Your task to perform on an android device: toggle javascript in the chrome app Image 0: 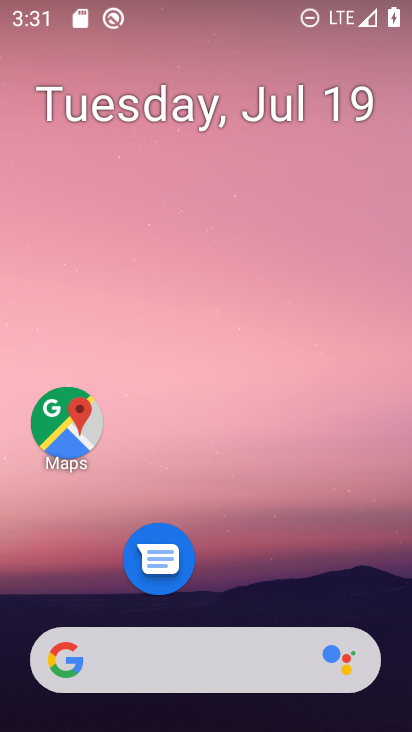
Step 0: drag from (193, 629) to (199, 142)
Your task to perform on an android device: toggle javascript in the chrome app Image 1: 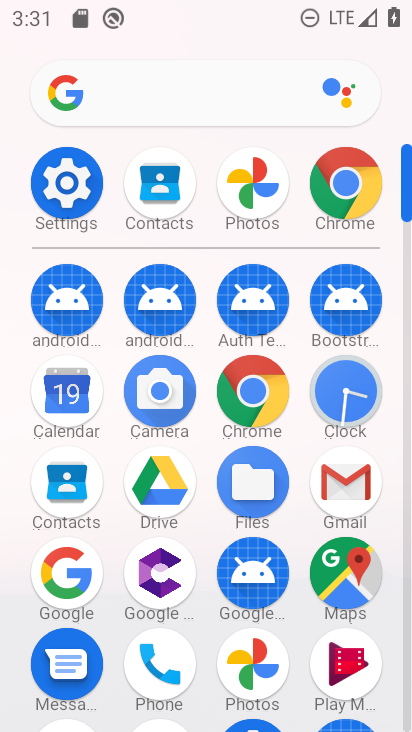
Step 1: click (355, 201)
Your task to perform on an android device: toggle javascript in the chrome app Image 2: 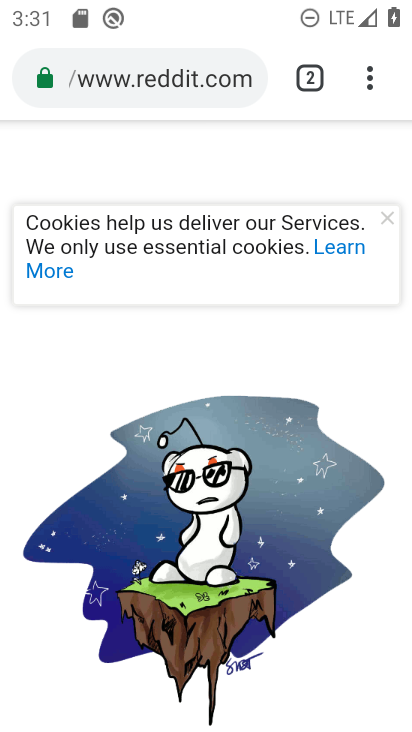
Step 2: click (368, 87)
Your task to perform on an android device: toggle javascript in the chrome app Image 3: 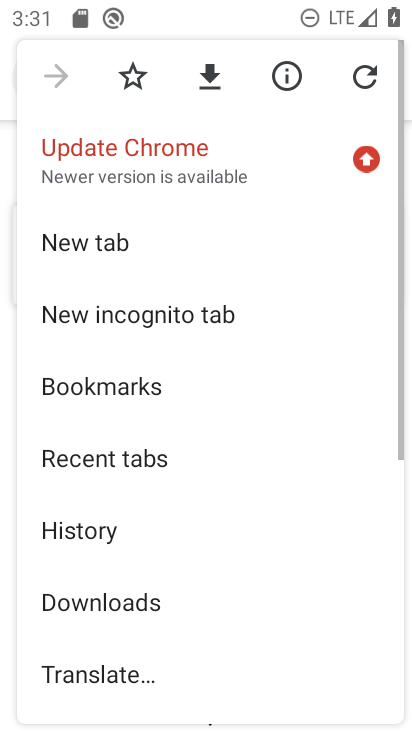
Step 3: drag from (194, 534) to (196, 250)
Your task to perform on an android device: toggle javascript in the chrome app Image 4: 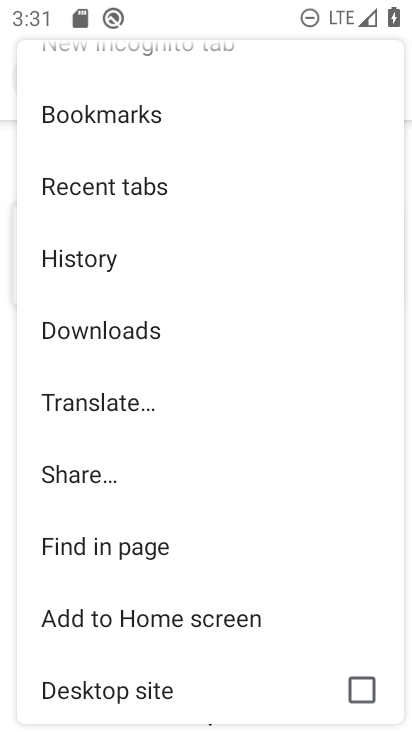
Step 4: drag from (144, 542) to (169, 195)
Your task to perform on an android device: toggle javascript in the chrome app Image 5: 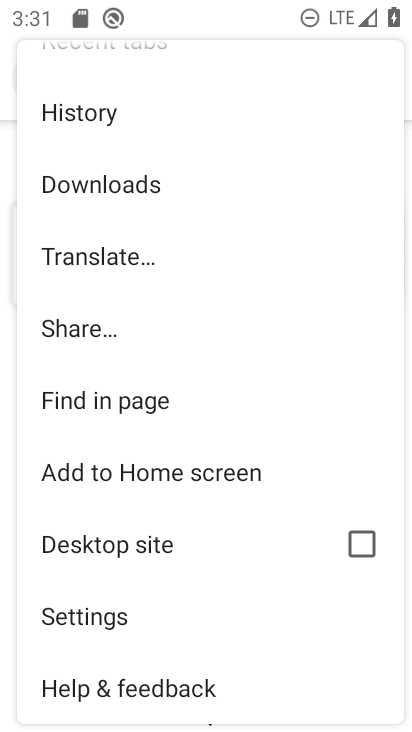
Step 5: click (110, 619)
Your task to perform on an android device: toggle javascript in the chrome app Image 6: 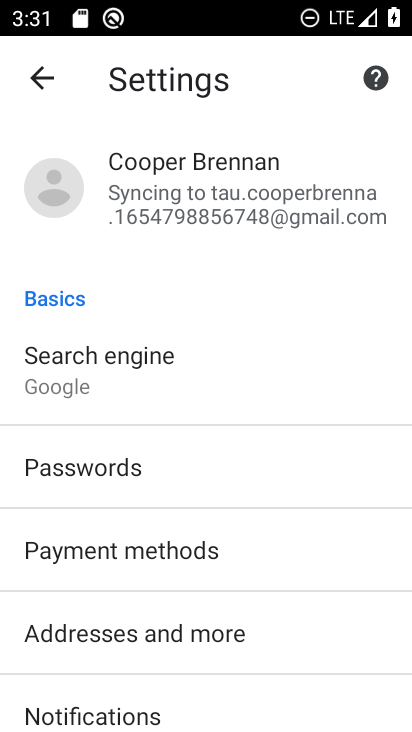
Step 6: drag from (113, 662) to (137, 258)
Your task to perform on an android device: toggle javascript in the chrome app Image 7: 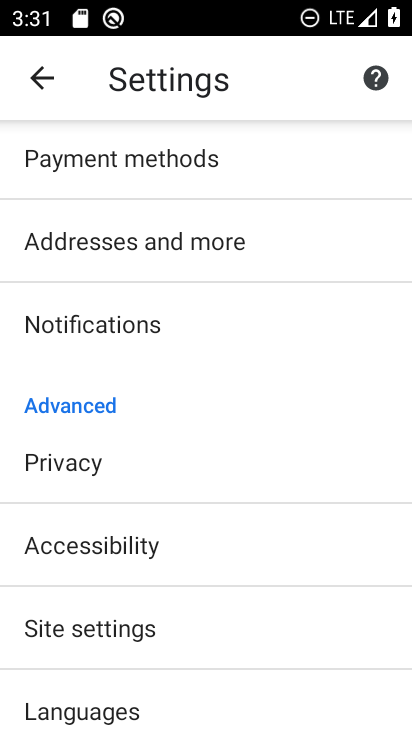
Step 7: click (107, 628)
Your task to perform on an android device: toggle javascript in the chrome app Image 8: 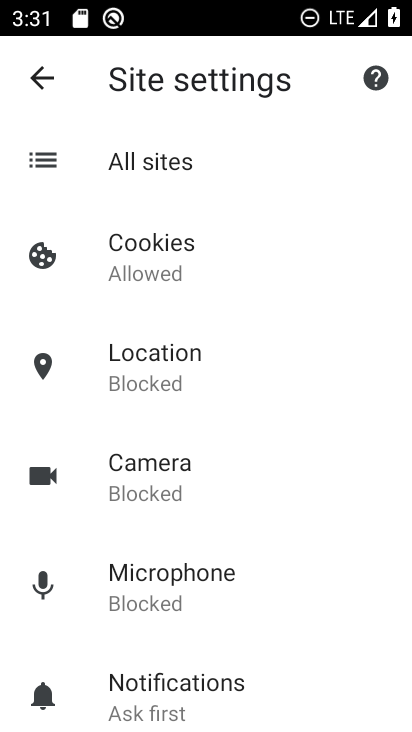
Step 8: drag from (162, 528) to (221, 213)
Your task to perform on an android device: toggle javascript in the chrome app Image 9: 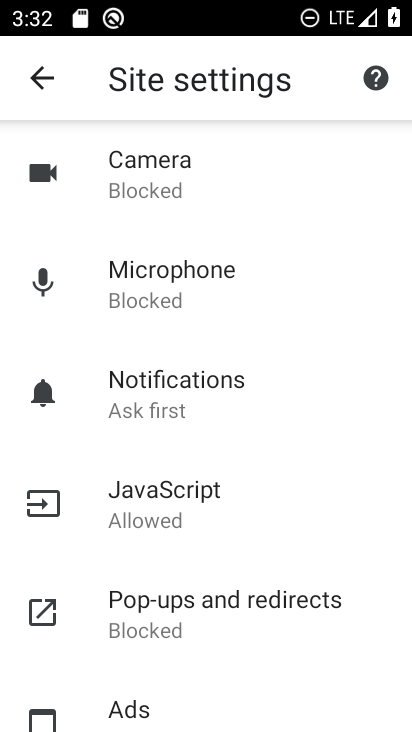
Step 9: click (194, 499)
Your task to perform on an android device: toggle javascript in the chrome app Image 10: 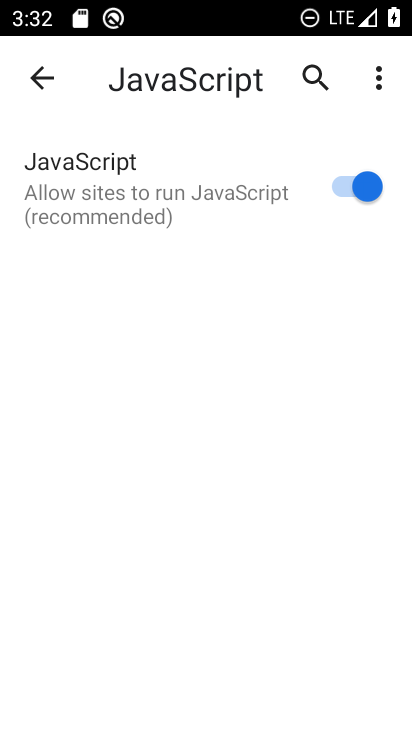
Step 10: click (339, 186)
Your task to perform on an android device: toggle javascript in the chrome app Image 11: 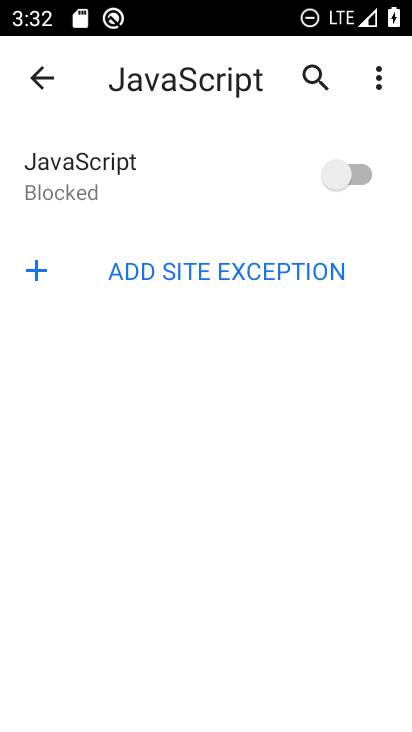
Step 11: task complete